Your task to perform on an android device: change the upload size in google photos Image 0: 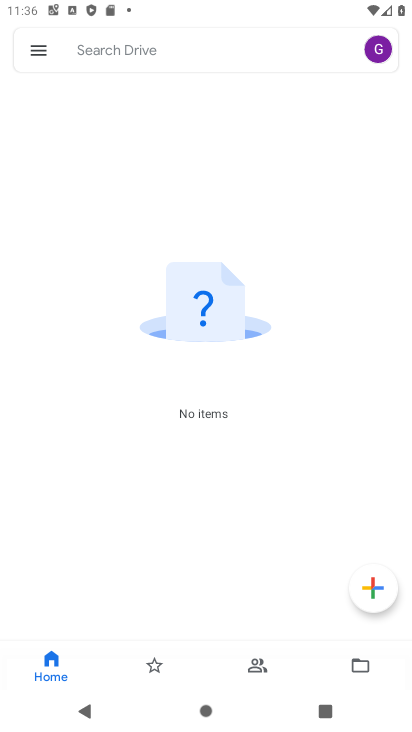
Step 0: press home button
Your task to perform on an android device: change the upload size in google photos Image 1: 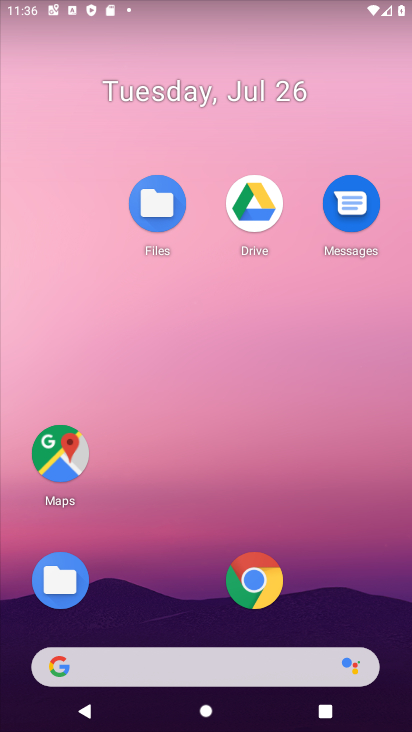
Step 1: drag from (172, 589) to (248, 228)
Your task to perform on an android device: change the upload size in google photos Image 2: 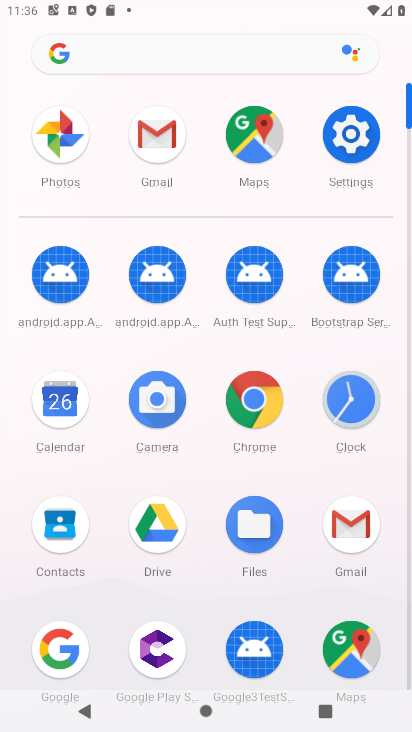
Step 2: click (45, 136)
Your task to perform on an android device: change the upload size in google photos Image 3: 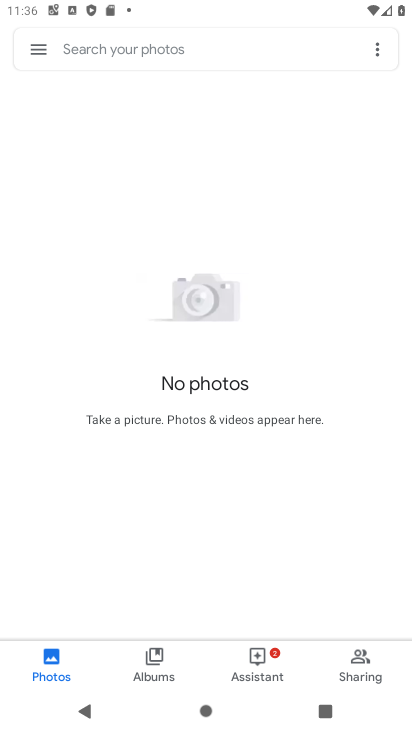
Step 3: click (34, 71)
Your task to perform on an android device: change the upload size in google photos Image 4: 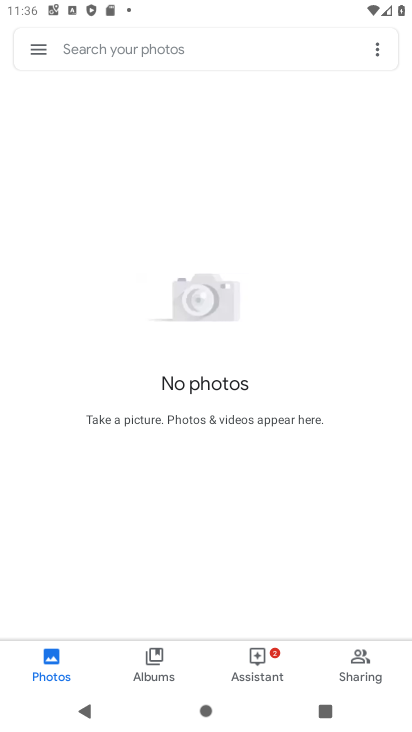
Step 4: click (34, 71)
Your task to perform on an android device: change the upload size in google photos Image 5: 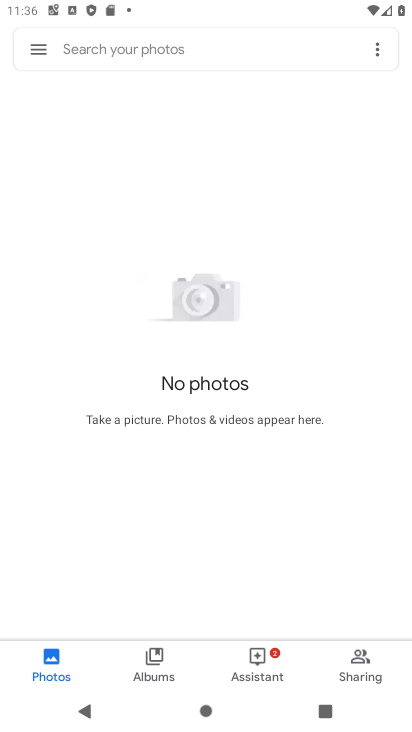
Step 5: click (40, 53)
Your task to perform on an android device: change the upload size in google photos Image 6: 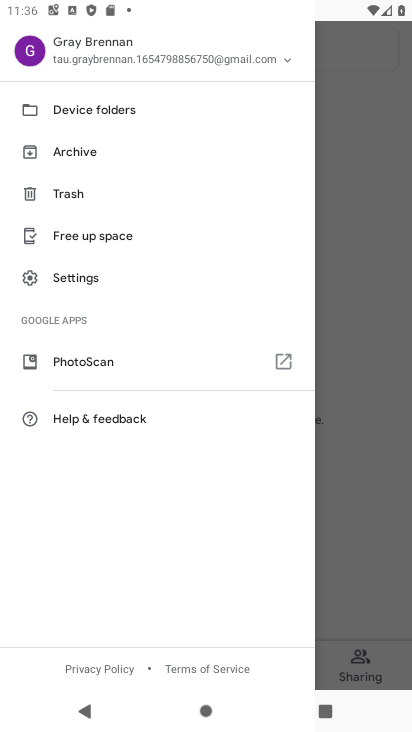
Step 6: click (48, 289)
Your task to perform on an android device: change the upload size in google photos Image 7: 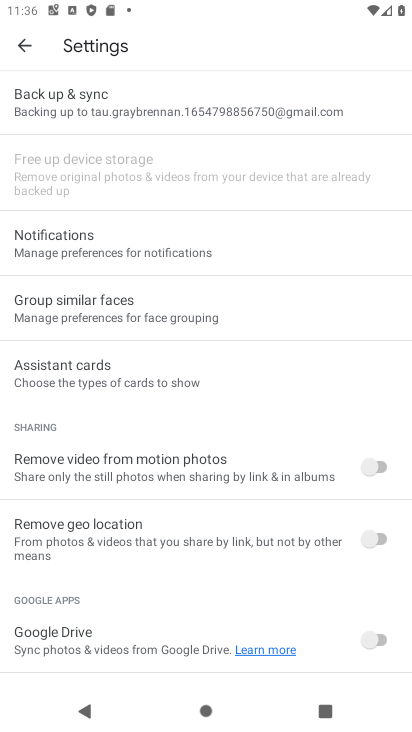
Step 7: click (25, 98)
Your task to perform on an android device: change the upload size in google photos Image 8: 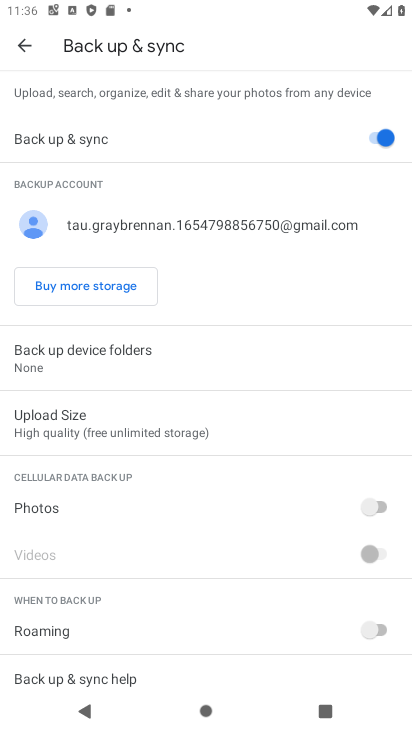
Step 8: click (106, 429)
Your task to perform on an android device: change the upload size in google photos Image 9: 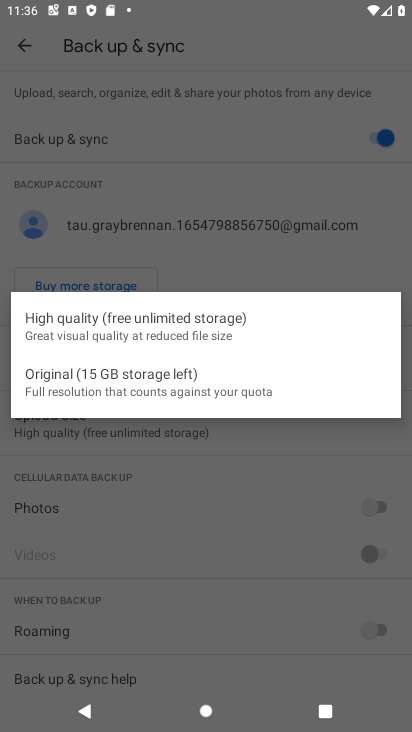
Step 9: click (99, 403)
Your task to perform on an android device: change the upload size in google photos Image 10: 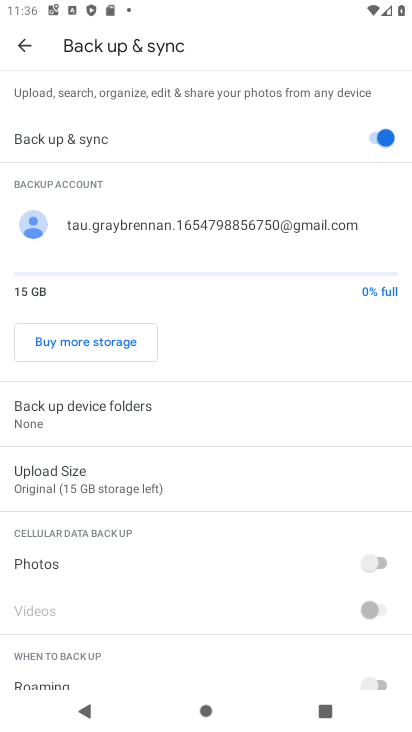
Step 10: task complete